Your task to perform on an android device: Search for seafood restaurants on Google Maps Image 0: 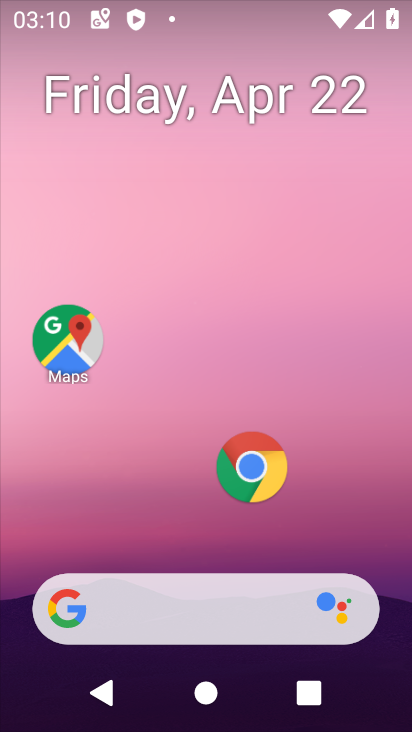
Step 0: drag from (152, 442) to (196, 212)
Your task to perform on an android device: Search for seafood restaurants on Google Maps Image 1: 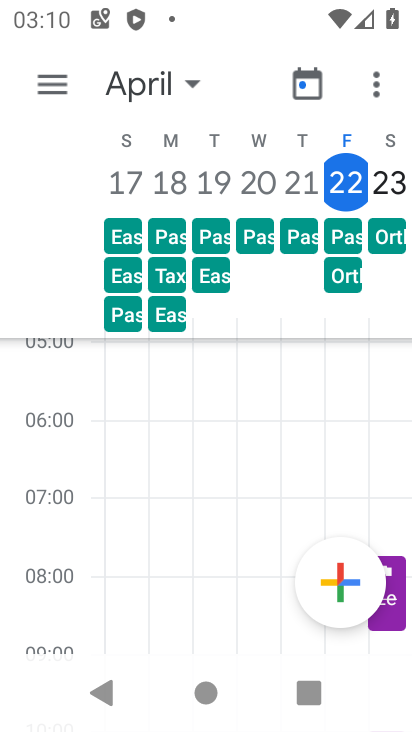
Step 1: press home button
Your task to perform on an android device: Search for seafood restaurants on Google Maps Image 2: 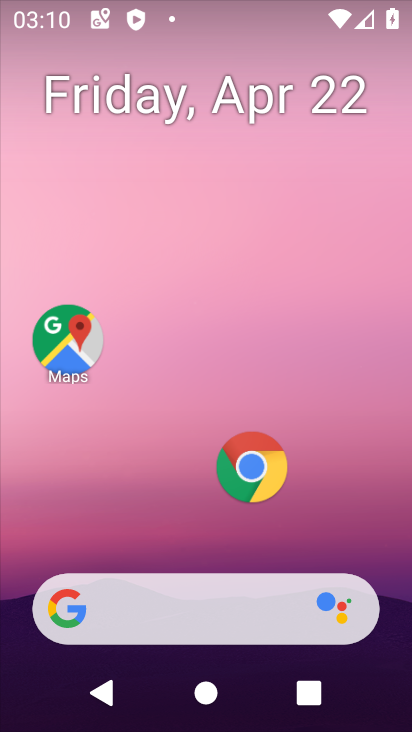
Step 2: click (75, 331)
Your task to perform on an android device: Search for seafood restaurants on Google Maps Image 3: 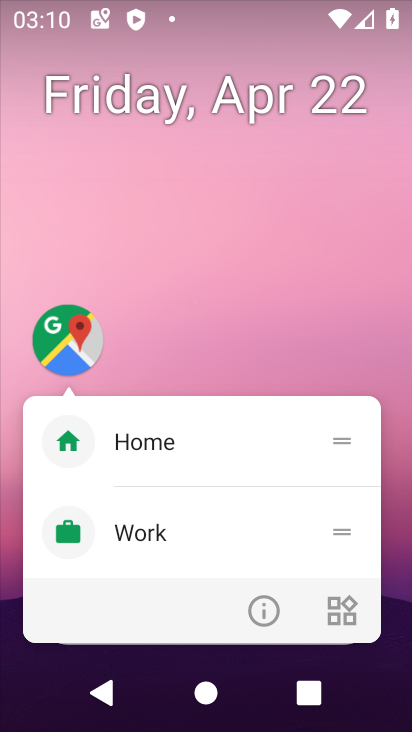
Step 3: click (272, 612)
Your task to perform on an android device: Search for seafood restaurants on Google Maps Image 4: 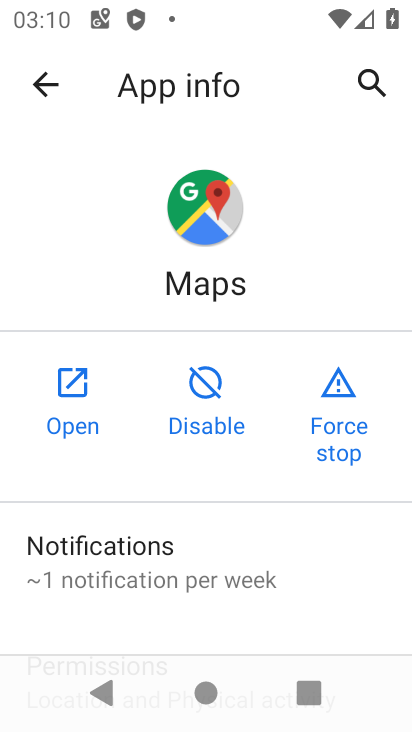
Step 4: click (70, 396)
Your task to perform on an android device: Search for seafood restaurants on Google Maps Image 5: 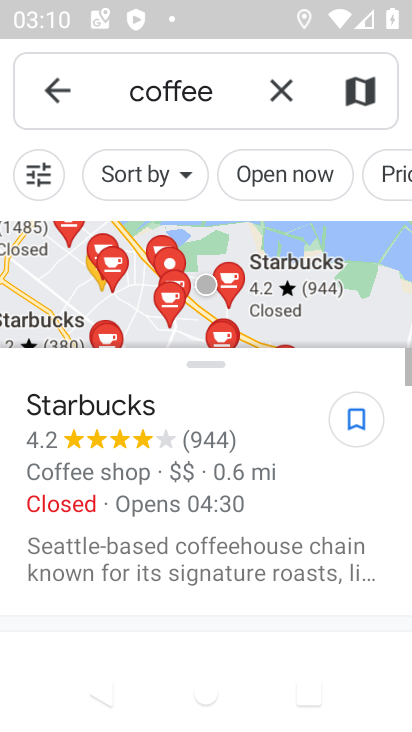
Step 5: click (267, 89)
Your task to perform on an android device: Search for seafood restaurants on Google Maps Image 6: 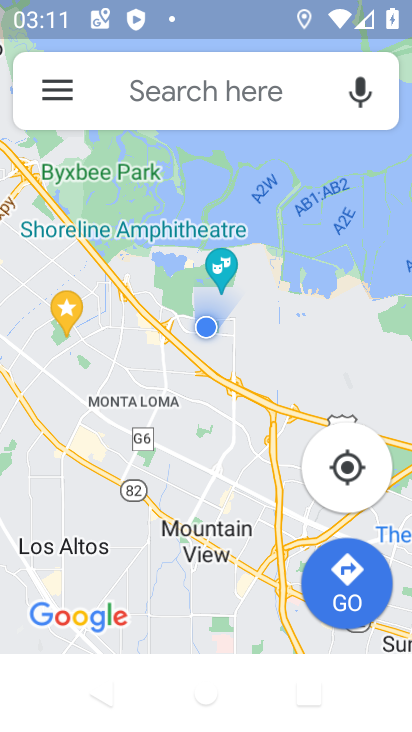
Step 6: type "seafood restaurants"
Your task to perform on an android device: Search for seafood restaurants on Google Maps Image 7: 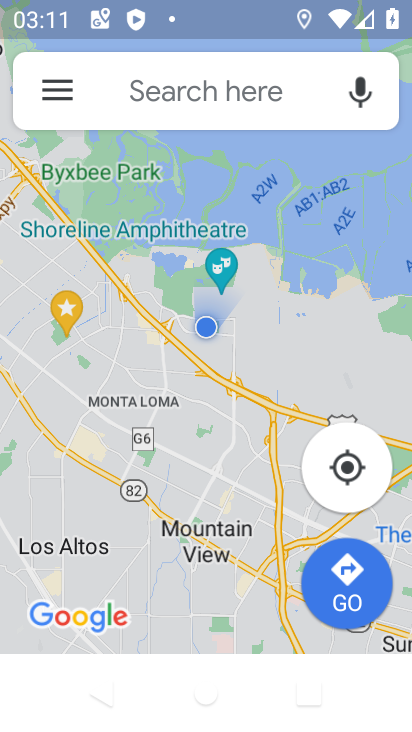
Step 7: click (208, 96)
Your task to perform on an android device: Search for seafood restaurants on Google Maps Image 8: 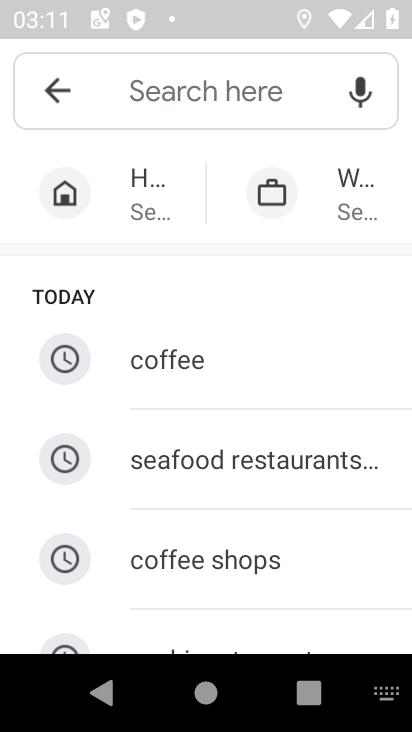
Step 8: click (238, 461)
Your task to perform on an android device: Search for seafood restaurants on Google Maps Image 9: 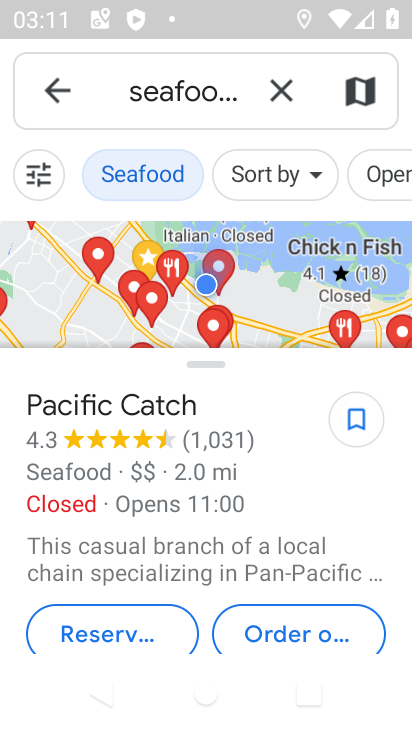
Step 9: task complete